Your task to perform on an android device: Search for Mexican restaurants on Maps Image 0: 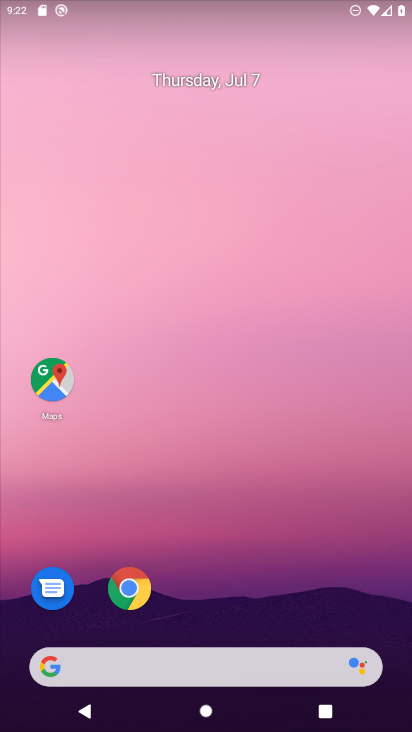
Step 0: click (54, 380)
Your task to perform on an android device: Search for Mexican restaurants on Maps Image 1: 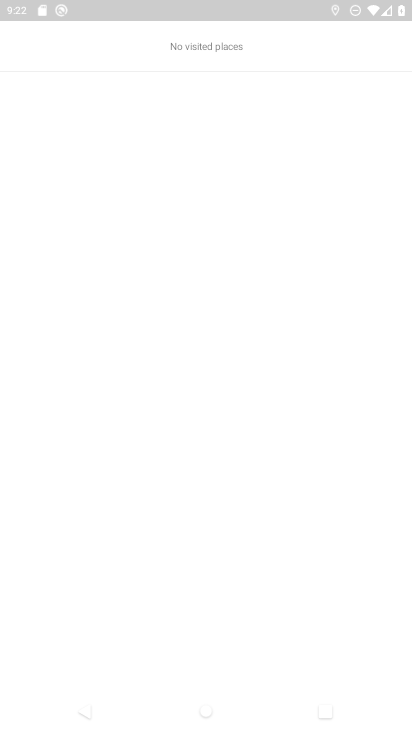
Step 1: press back button
Your task to perform on an android device: Search for Mexican restaurants on Maps Image 2: 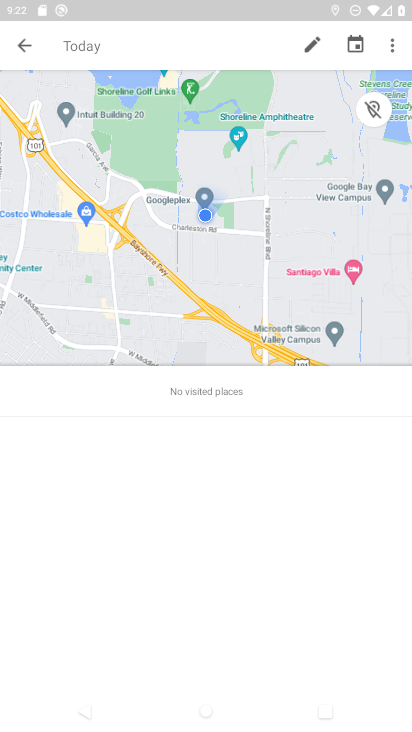
Step 2: click (29, 47)
Your task to perform on an android device: Search for Mexican restaurants on Maps Image 3: 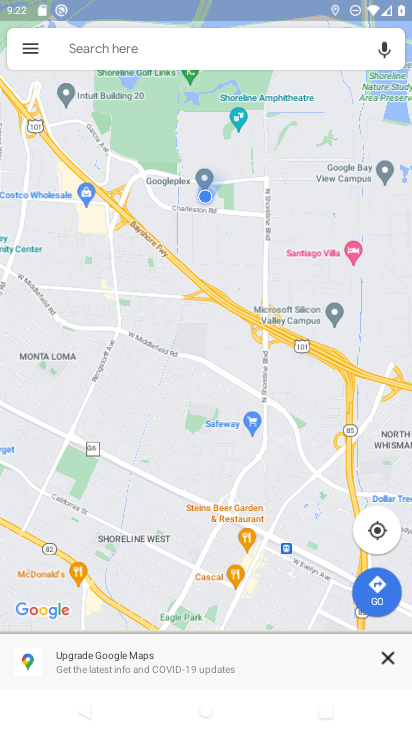
Step 3: click (172, 48)
Your task to perform on an android device: Search for Mexican restaurants on Maps Image 4: 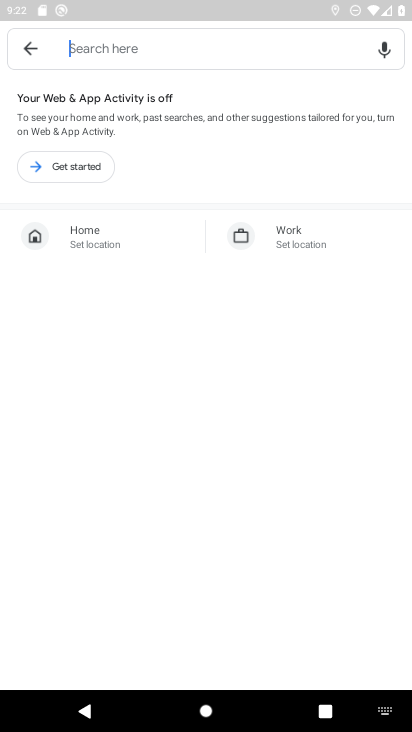
Step 4: type "mexican restaurant"
Your task to perform on an android device: Search for Mexican restaurants on Maps Image 5: 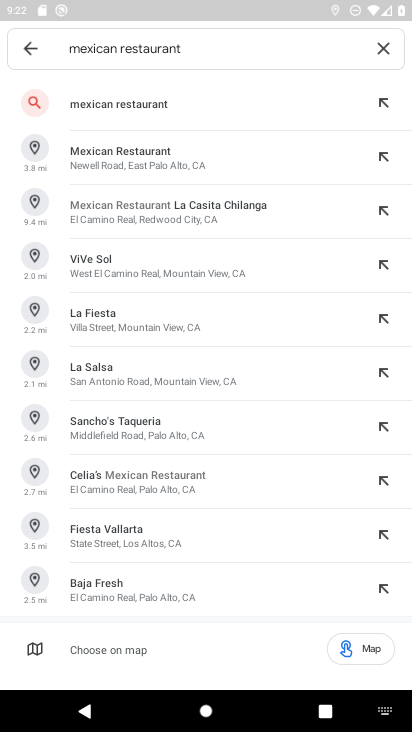
Step 5: click (269, 87)
Your task to perform on an android device: Search for Mexican restaurants on Maps Image 6: 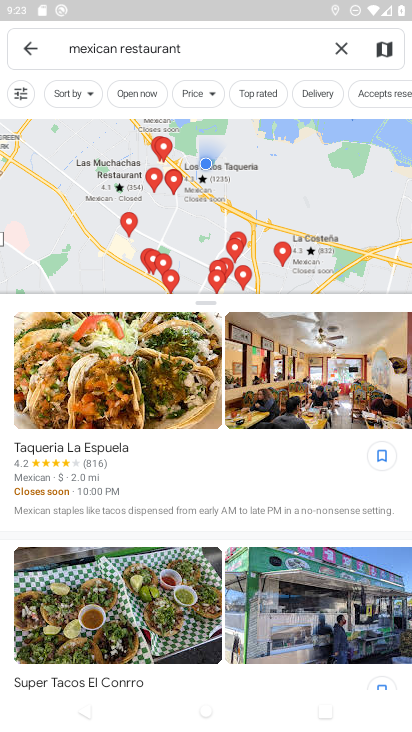
Step 6: task complete